Your task to perform on an android device: Do I have any events this weekend? Image 0: 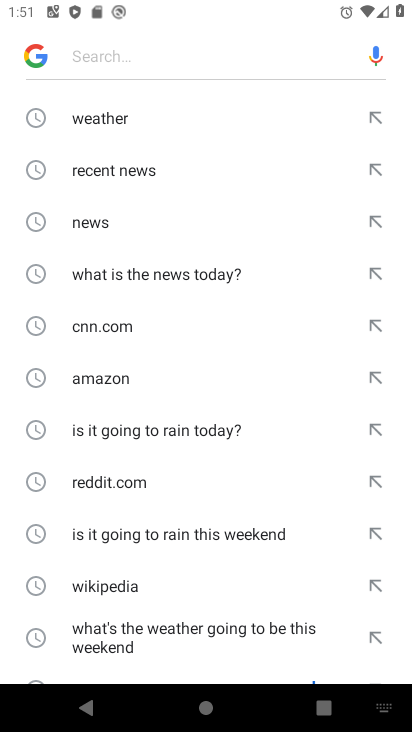
Step 0: press back button
Your task to perform on an android device: Do I have any events this weekend? Image 1: 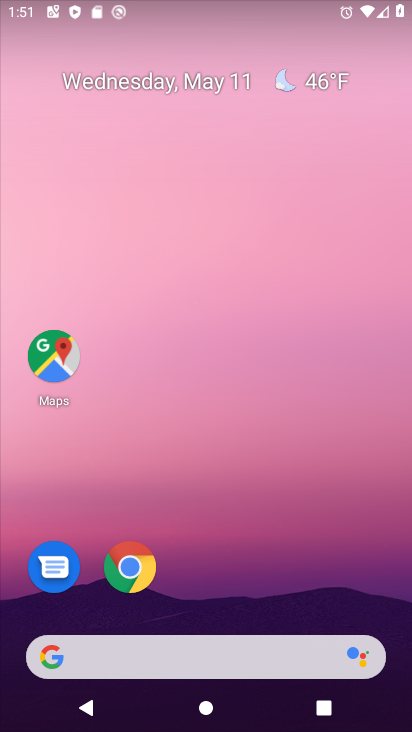
Step 1: drag from (220, 633) to (400, 274)
Your task to perform on an android device: Do I have any events this weekend? Image 2: 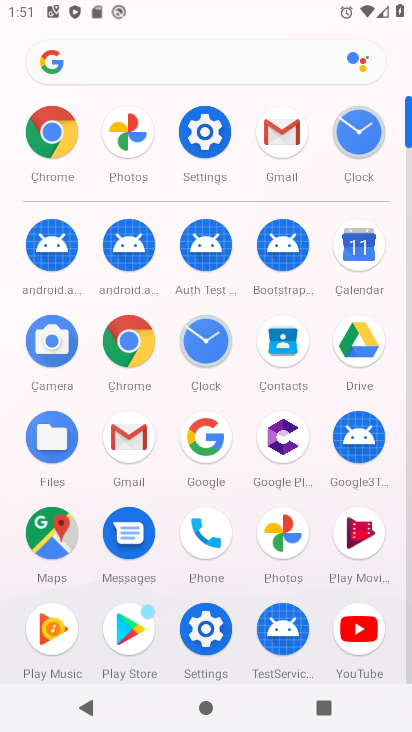
Step 2: click (363, 241)
Your task to perform on an android device: Do I have any events this weekend? Image 3: 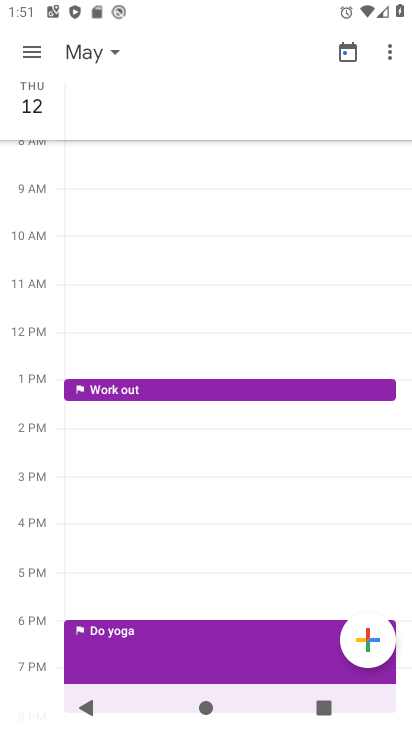
Step 3: click (25, 43)
Your task to perform on an android device: Do I have any events this weekend? Image 4: 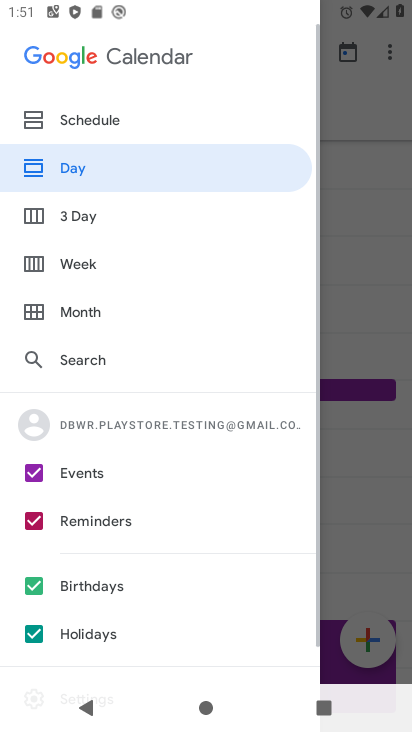
Step 4: click (63, 259)
Your task to perform on an android device: Do I have any events this weekend? Image 5: 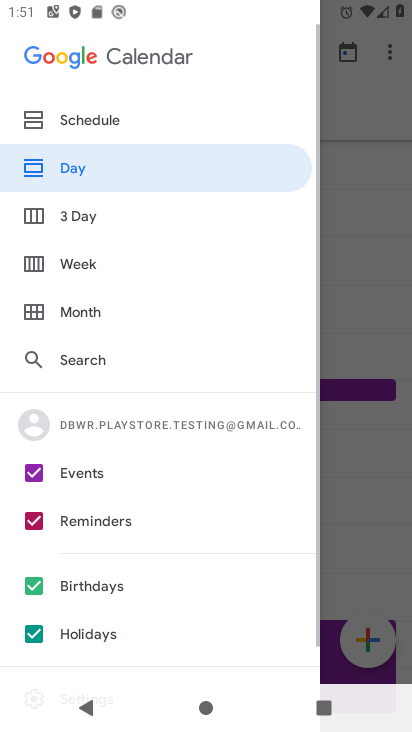
Step 5: click (64, 255)
Your task to perform on an android device: Do I have any events this weekend? Image 6: 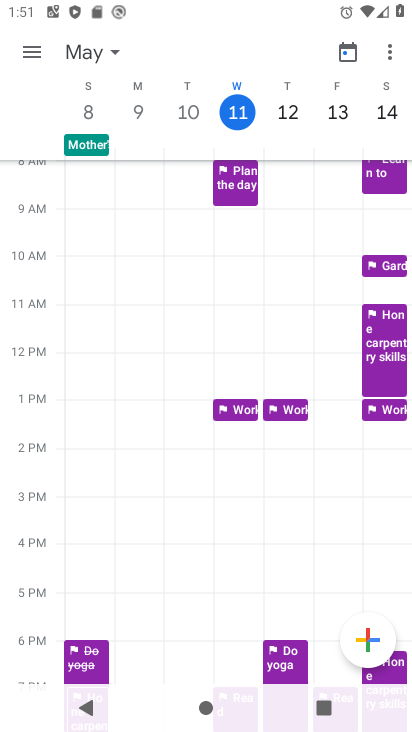
Step 6: task complete